Your task to perform on an android device: Go to Reddit.com Image 0: 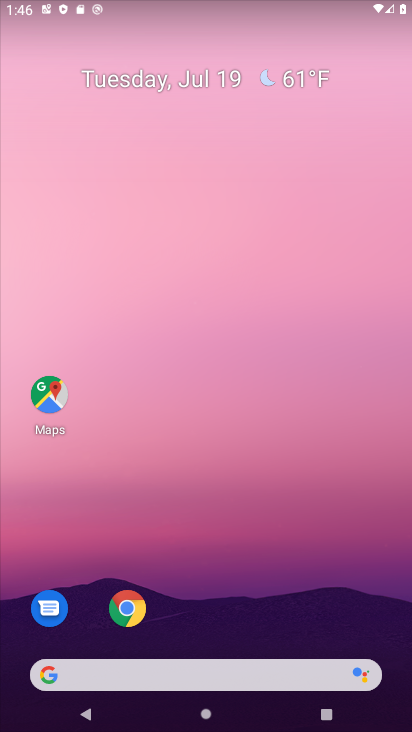
Step 0: drag from (246, 487) to (333, 0)
Your task to perform on an android device: Go to Reddit.com Image 1: 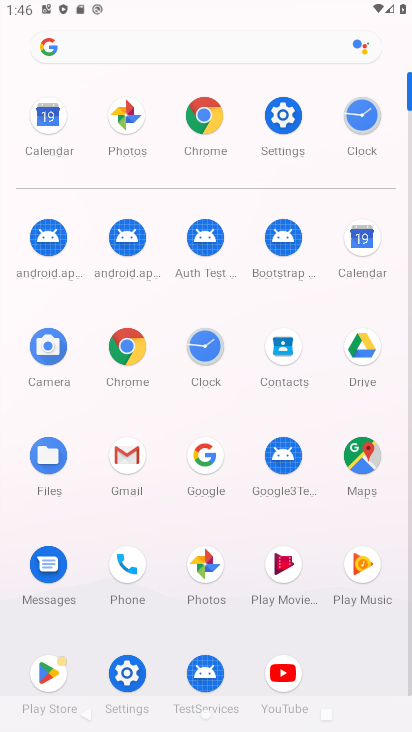
Step 1: click (209, 124)
Your task to perform on an android device: Go to Reddit.com Image 2: 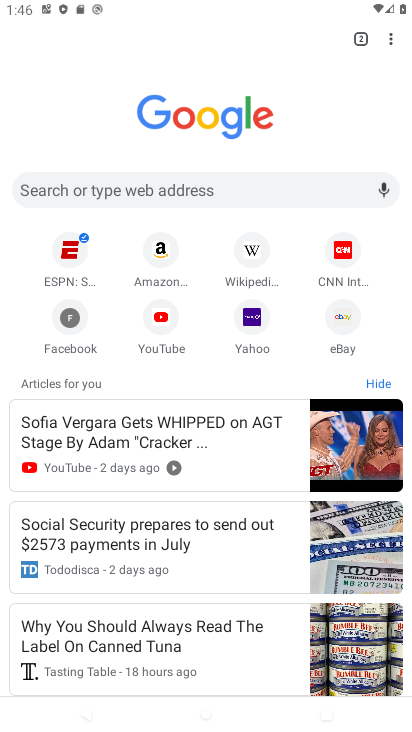
Step 2: click (221, 184)
Your task to perform on an android device: Go to Reddit.com Image 3: 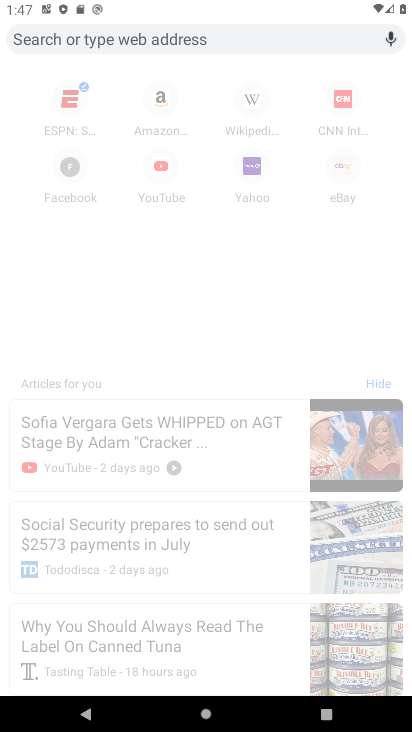
Step 3: type "Reddit.com"
Your task to perform on an android device: Go to Reddit.com Image 4: 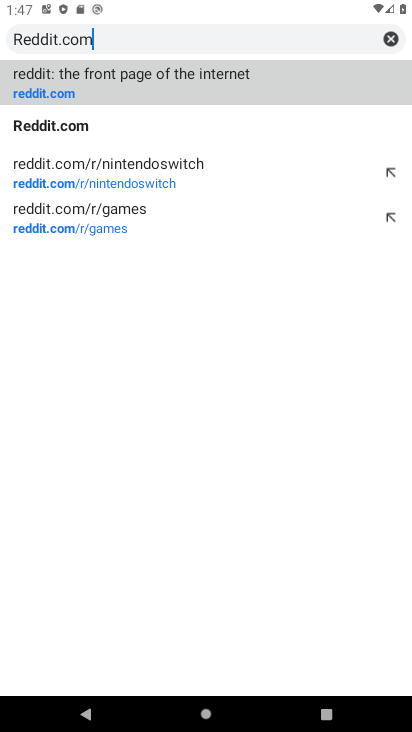
Step 4: press enter
Your task to perform on an android device: Go to Reddit.com Image 5: 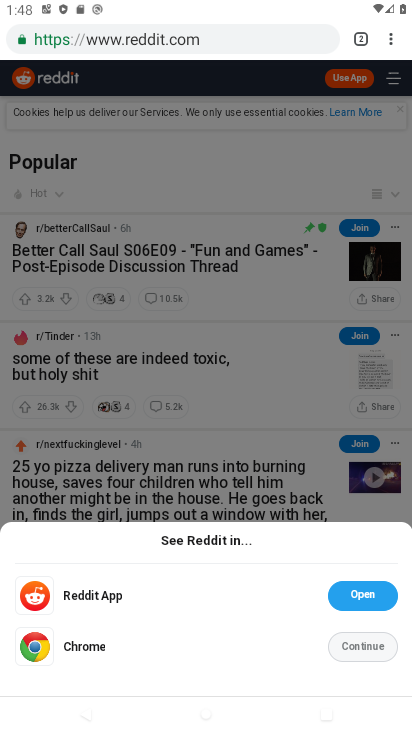
Step 5: task complete